Your task to perform on an android device: check battery use Image 0: 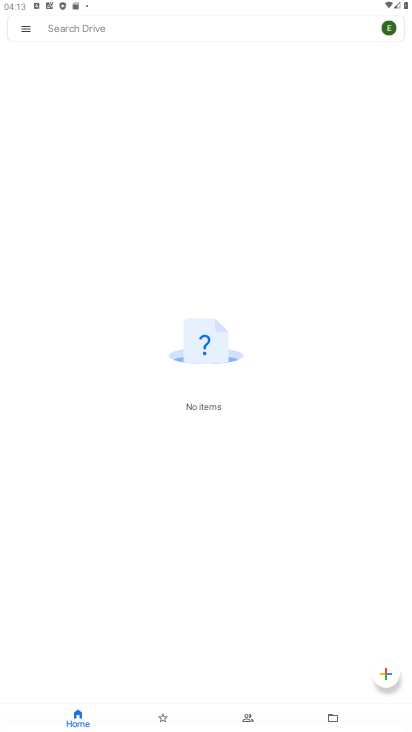
Step 0: press home button
Your task to perform on an android device: check battery use Image 1: 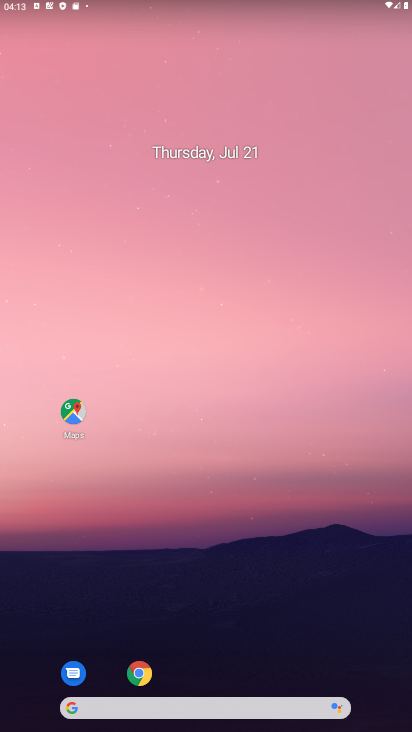
Step 1: drag from (369, 687) to (375, 248)
Your task to perform on an android device: check battery use Image 2: 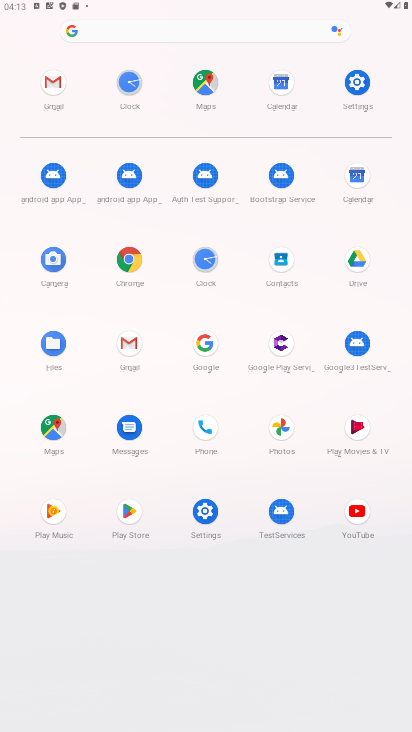
Step 2: click (206, 514)
Your task to perform on an android device: check battery use Image 3: 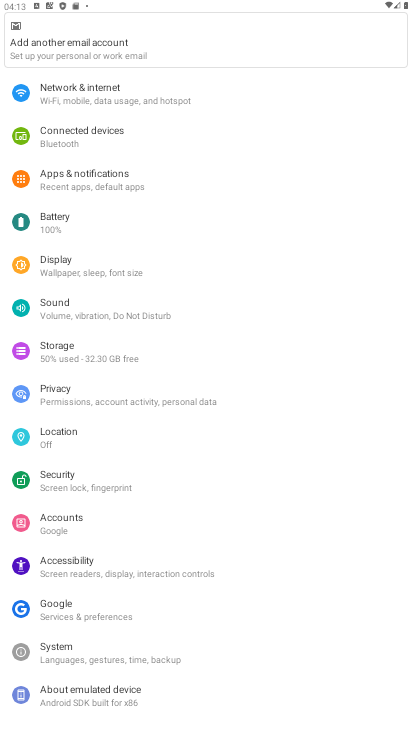
Step 3: click (45, 214)
Your task to perform on an android device: check battery use Image 4: 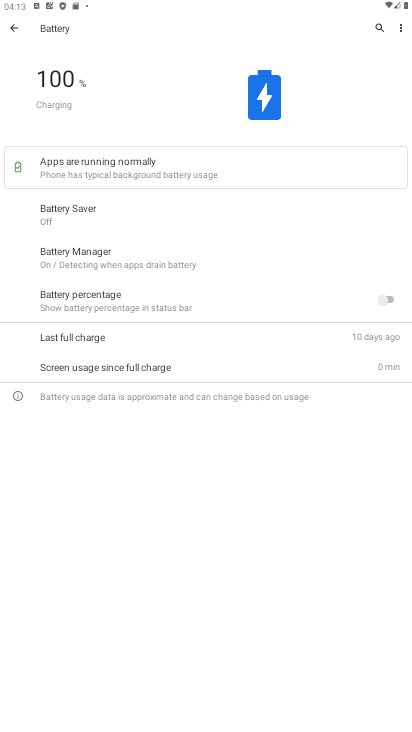
Step 4: click (401, 29)
Your task to perform on an android device: check battery use Image 5: 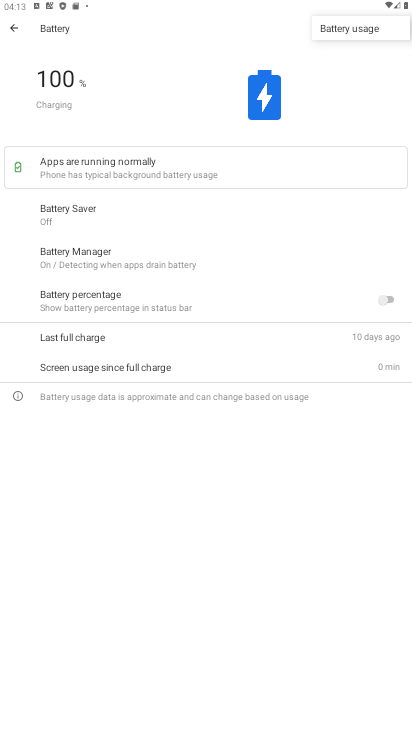
Step 5: click (350, 21)
Your task to perform on an android device: check battery use Image 6: 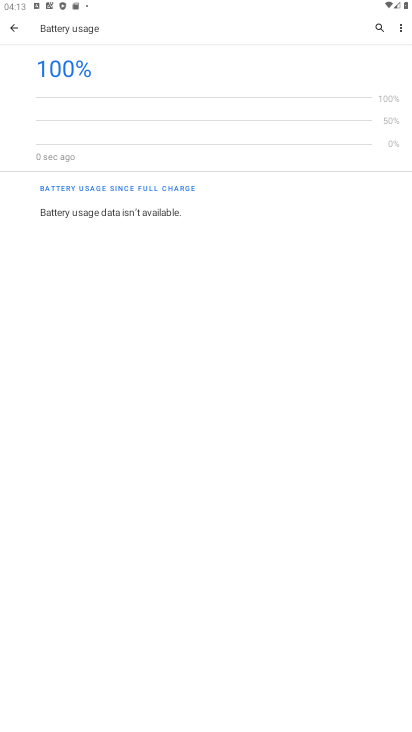
Step 6: task complete